Your task to perform on an android device: stop showing notifications on the lock screen Image 0: 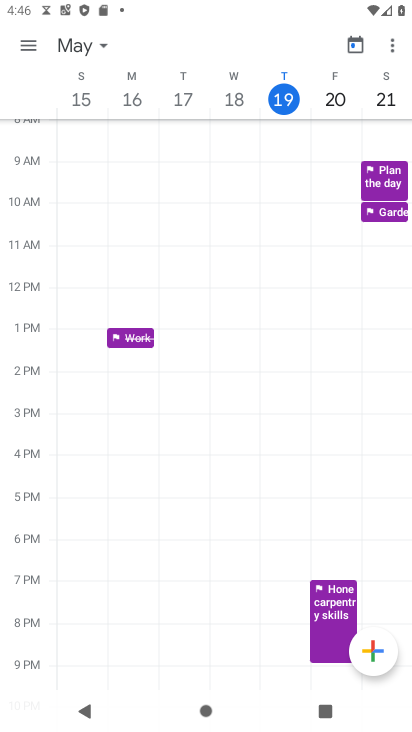
Step 0: press home button
Your task to perform on an android device: stop showing notifications on the lock screen Image 1: 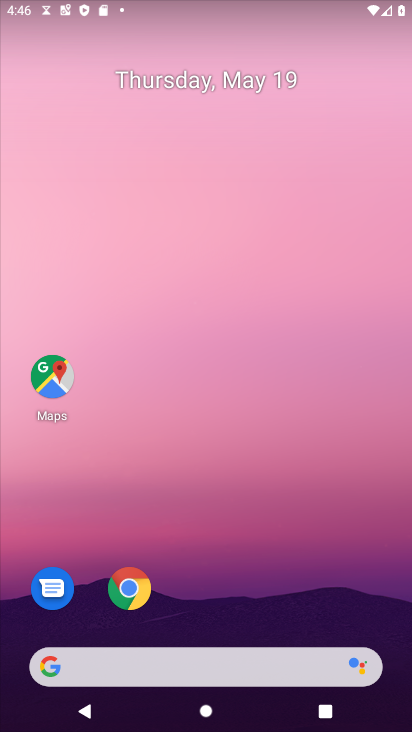
Step 1: drag from (236, 589) to (247, 44)
Your task to perform on an android device: stop showing notifications on the lock screen Image 2: 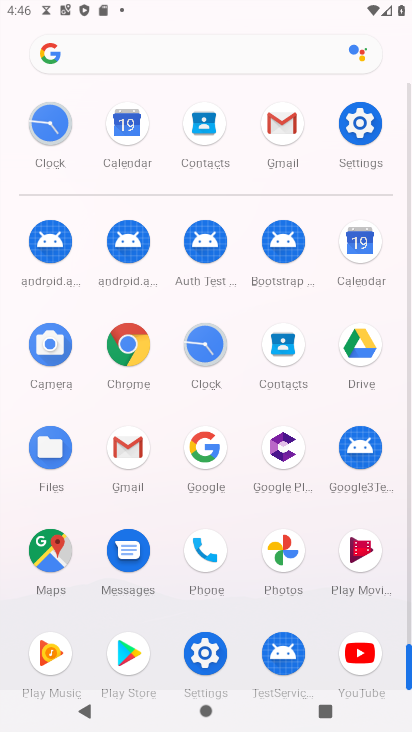
Step 2: click (363, 143)
Your task to perform on an android device: stop showing notifications on the lock screen Image 3: 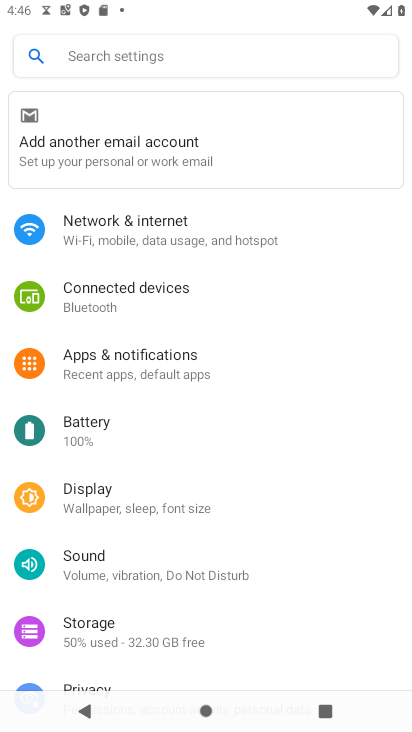
Step 3: click (162, 368)
Your task to perform on an android device: stop showing notifications on the lock screen Image 4: 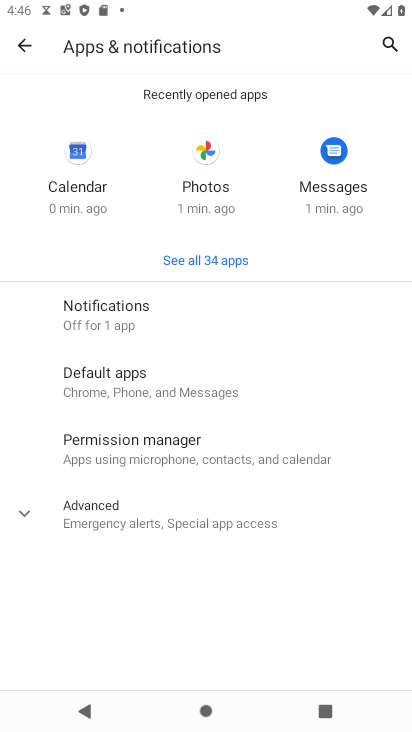
Step 4: click (135, 316)
Your task to perform on an android device: stop showing notifications on the lock screen Image 5: 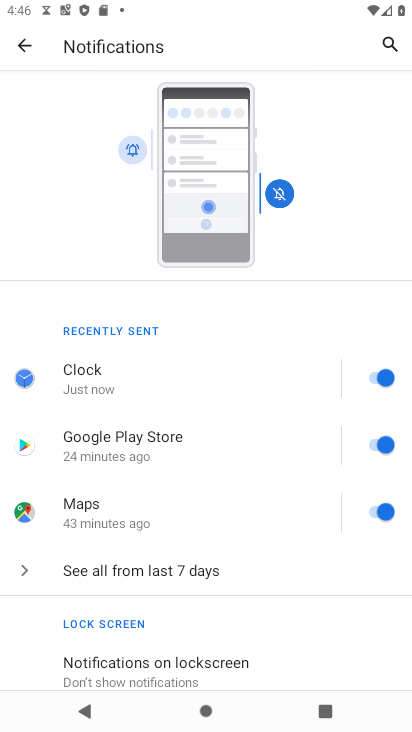
Step 5: drag from (175, 621) to (196, 404)
Your task to perform on an android device: stop showing notifications on the lock screen Image 6: 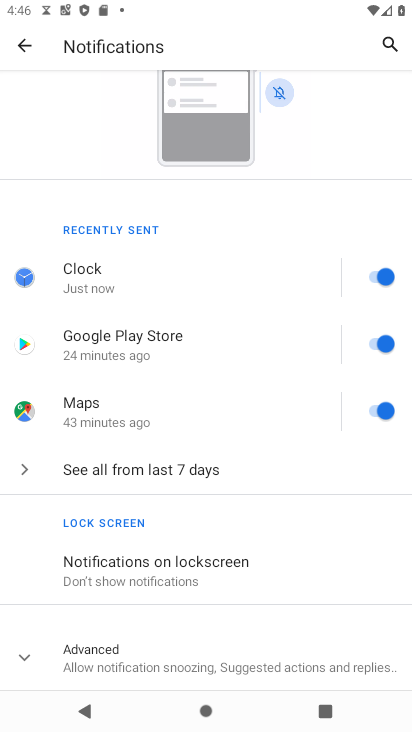
Step 6: click (178, 588)
Your task to perform on an android device: stop showing notifications on the lock screen Image 7: 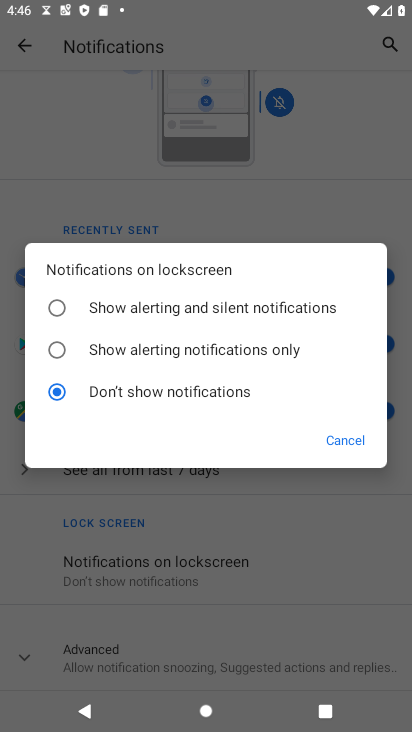
Step 7: task complete